Your task to perform on an android device: turn off airplane mode Image 0: 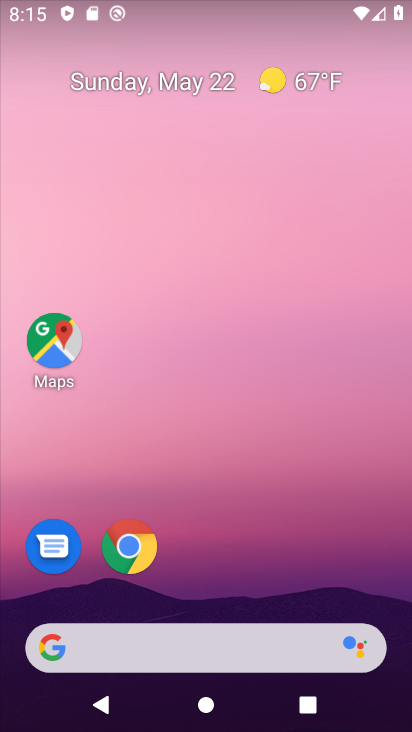
Step 0: drag from (198, 470) to (260, 0)
Your task to perform on an android device: turn off airplane mode Image 1: 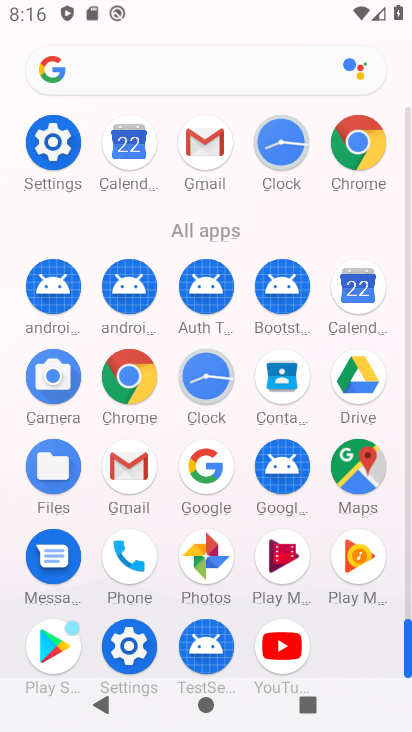
Step 1: click (61, 155)
Your task to perform on an android device: turn off airplane mode Image 2: 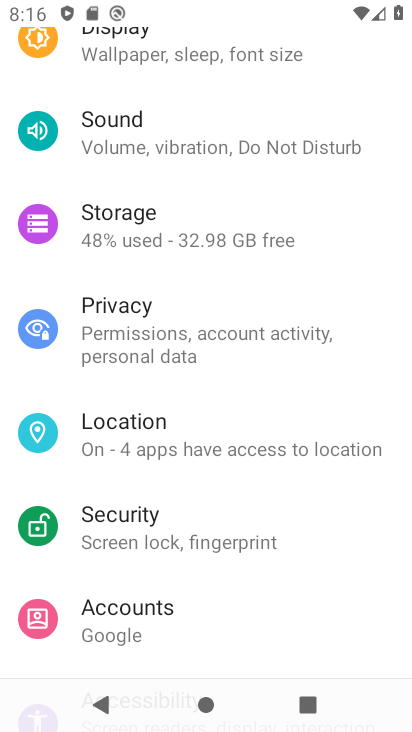
Step 2: drag from (217, 264) to (169, 725)
Your task to perform on an android device: turn off airplane mode Image 3: 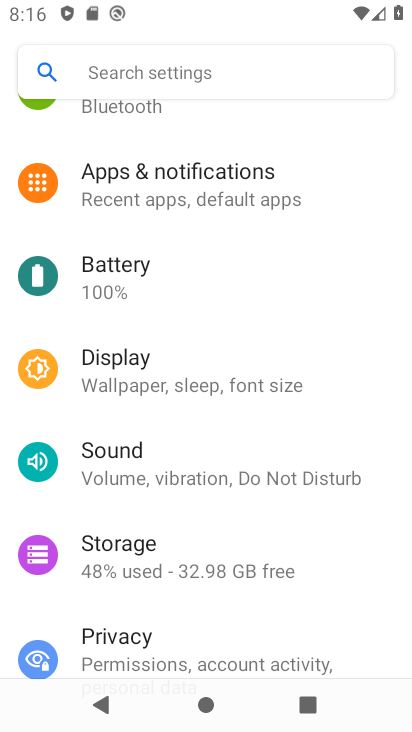
Step 3: drag from (191, 252) to (178, 706)
Your task to perform on an android device: turn off airplane mode Image 4: 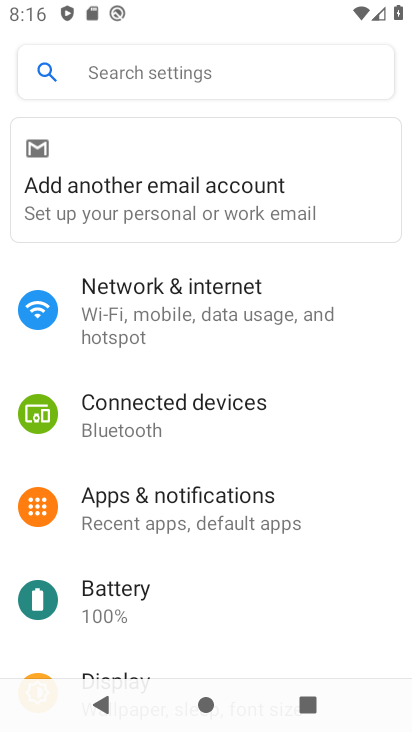
Step 4: click (169, 311)
Your task to perform on an android device: turn off airplane mode Image 5: 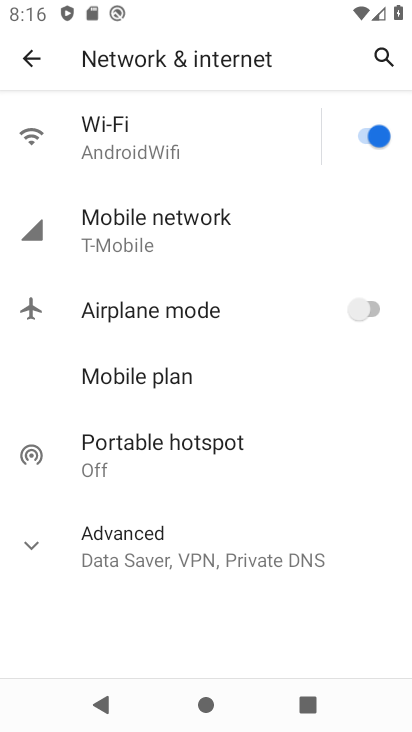
Step 5: task complete